Your task to perform on an android device: Open Yahoo.com Image 0: 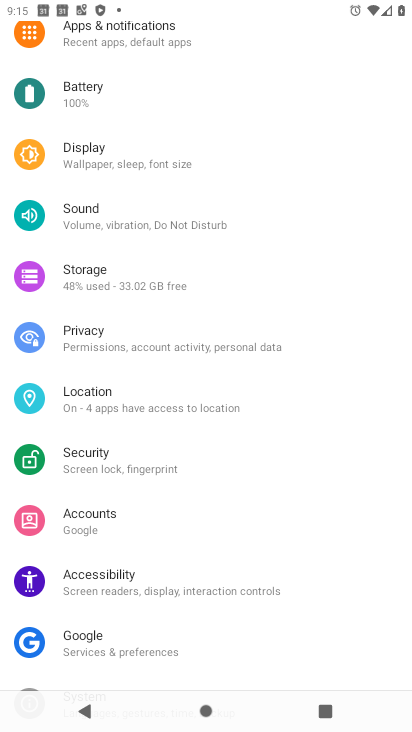
Step 0: press home button
Your task to perform on an android device: Open Yahoo.com Image 1: 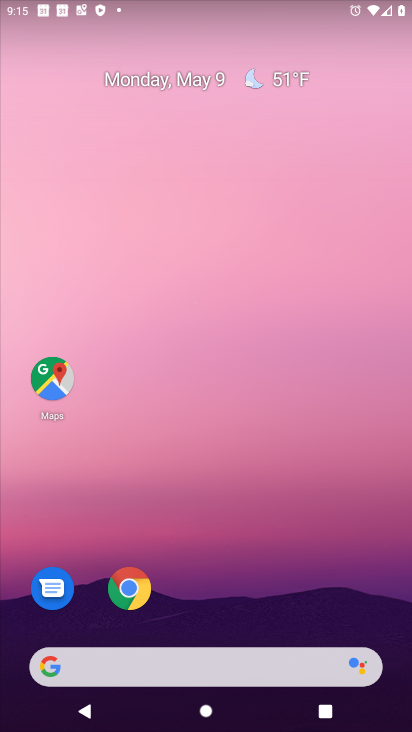
Step 1: click (131, 585)
Your task to perform on an android device: Open Yahoo.com Image 2: 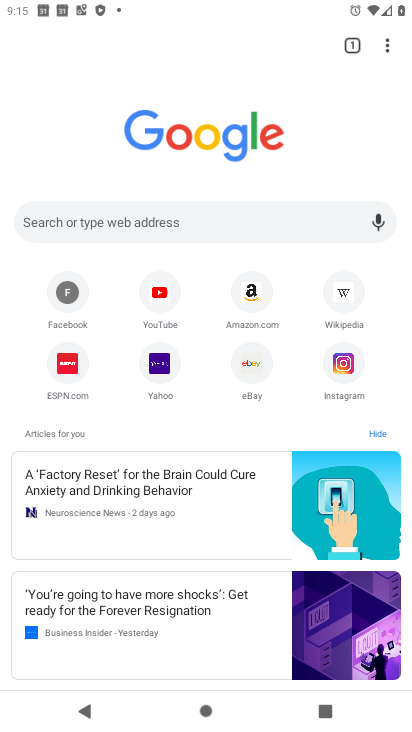
Step 2: click (164, 354)
Your task to perform on an android device: Open Yahoo.com Image 3: 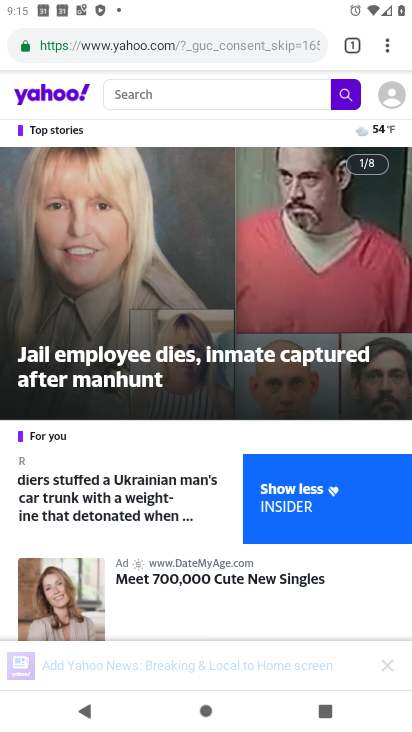
Step 3: task complete